Your task to perform on an android device: What's the weather today? Image 0: 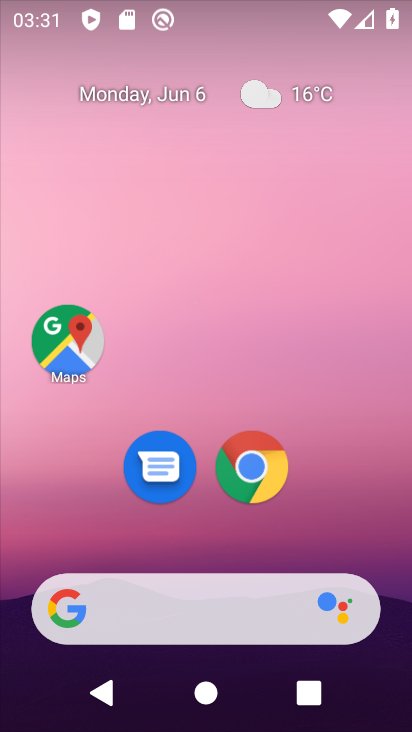
Step 0: click (308, 91)
Your task to perform on an android device: What's the weather today? Image 1: 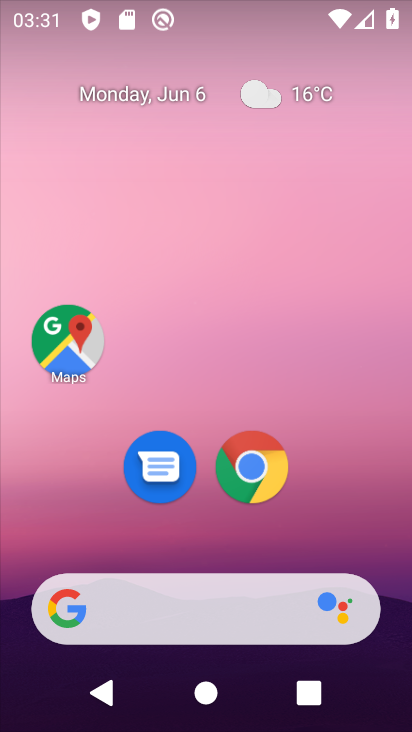
Step 1: click (308, 91)
Your task to perform on an android device: What's the weather today? Image 2: 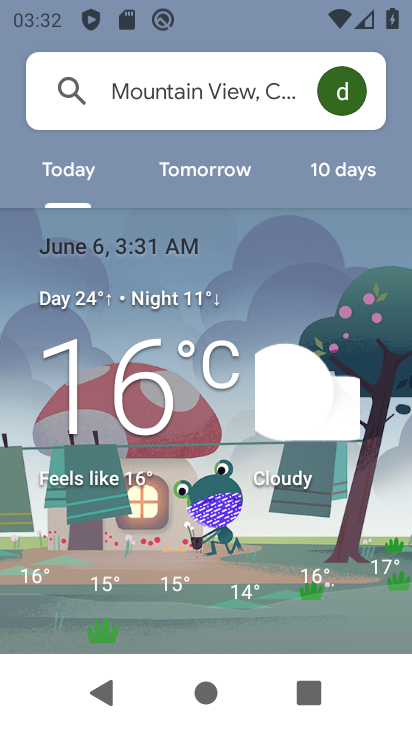
Step 2: task complete